Your task to perform on an android device: turn on bluetooth scan Image 0: 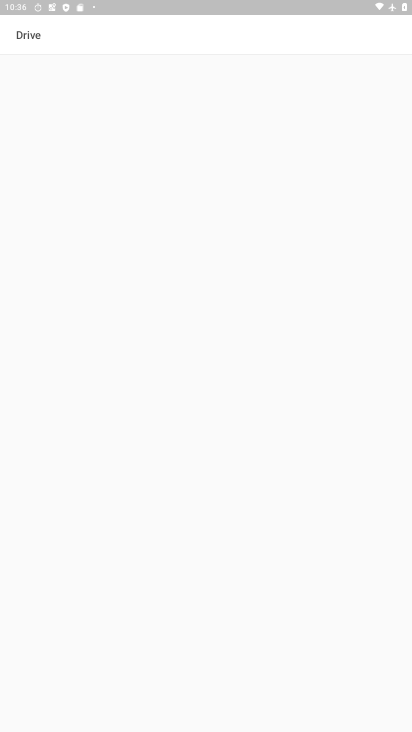
Step 0: press home button
Your task to perform on an android device: turn on bluetooth scan Image 1: 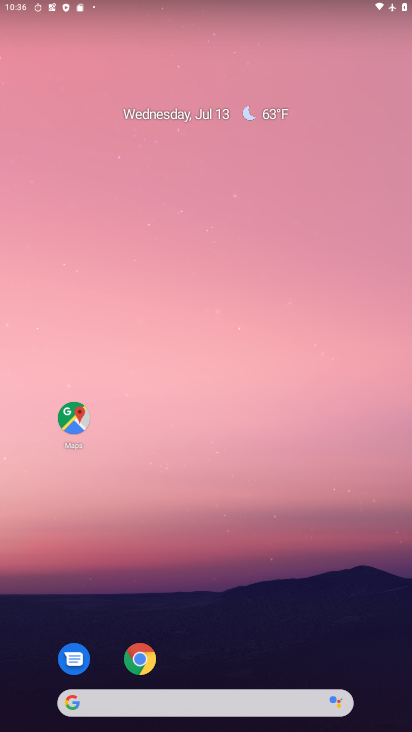
Step 1: drag from (348, 656) to (289, 88)
Your task to perform on an android device: turn on bluetooth scan Image 2: 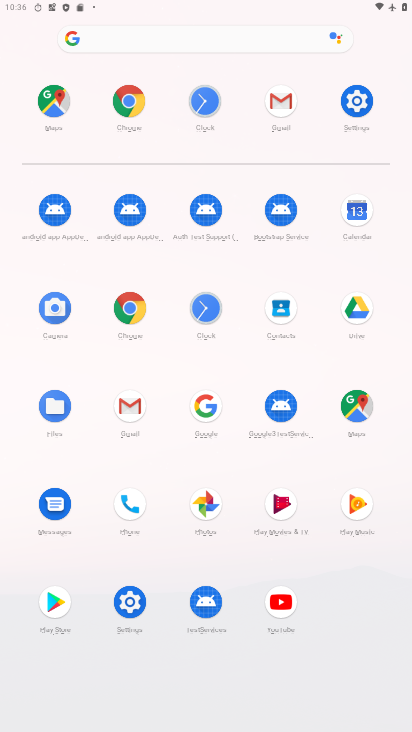
Step 2: click (369, 103)
Your task to perform on an android device: turn on bluetooth scan Image 3: 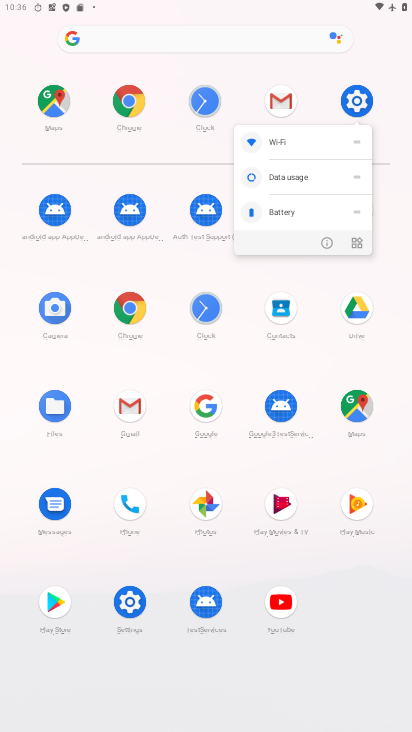
Step 3: click (358, 99)
Your task to perform on an android device: turn on bluetooth scan Image 4: 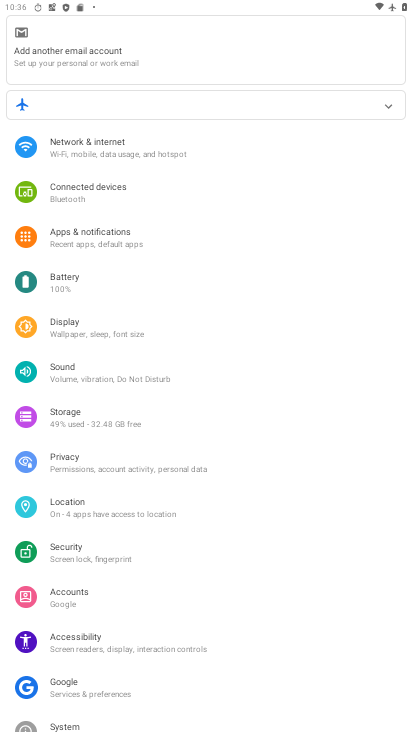
Step 4: click (113, 518)
Your task to perform on an android device: turn on bluetooth scan Image 5: 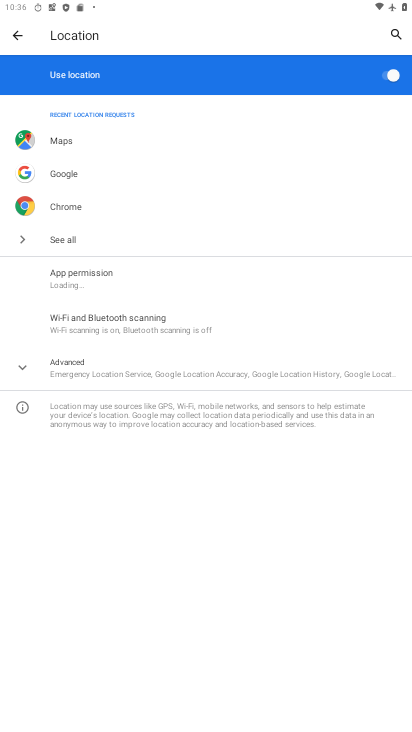
Step 5: click (81, 374)
Your task to perform on an android device: turn on bluetooth scan Image 6: 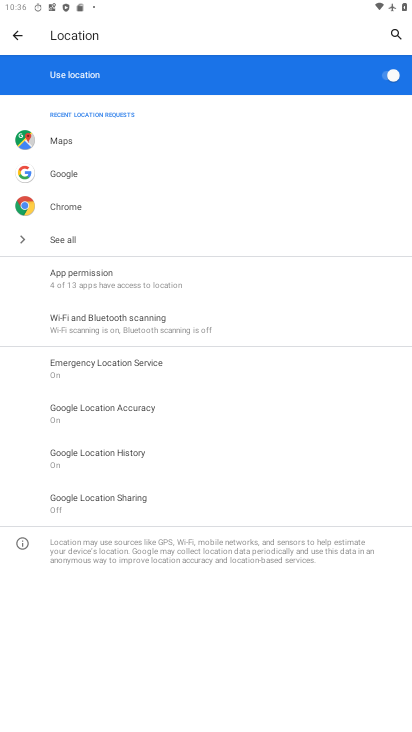
Step 6: click (158, 317)
Your task to perform on an android device: turn on bluetooth scan Image 7: 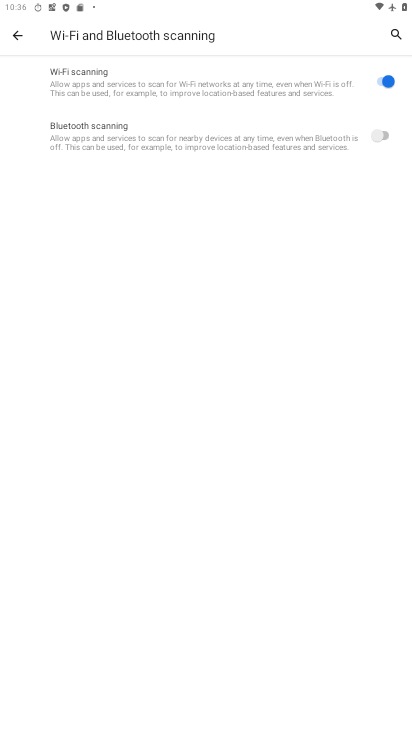
Step 7: click (385, 135)
Your task to perform on an android device: turn on bluetooth scan Image 8: 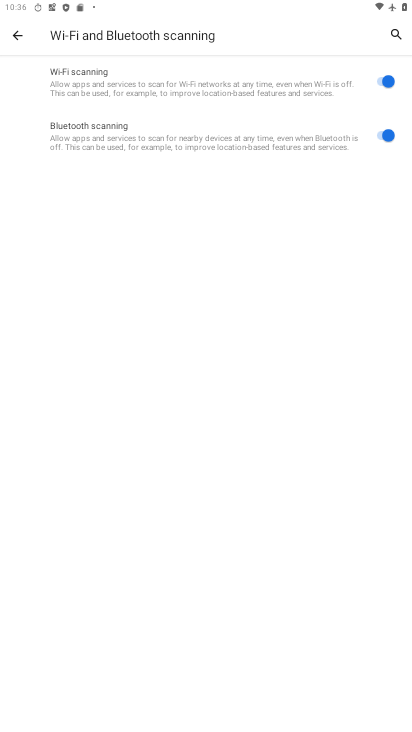
Step 8: task complete